Your task to perform on an android device: Show me popular videos on Youtube Image 0: 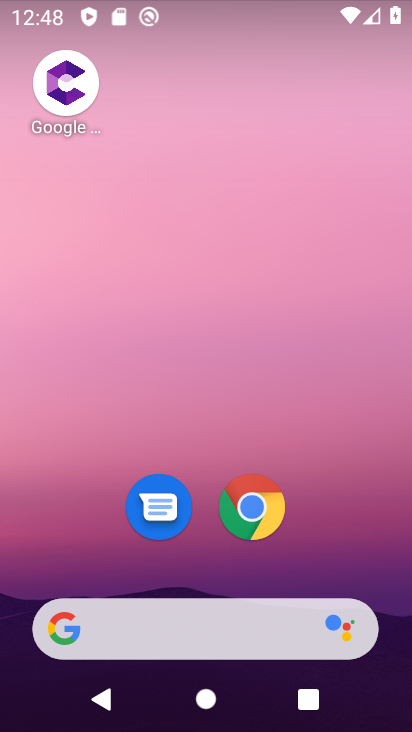
Step 0: drag from (344, 474) to (255, 17)
Your task to perform on an android device: Show me popular videos on Youtube Image 1: 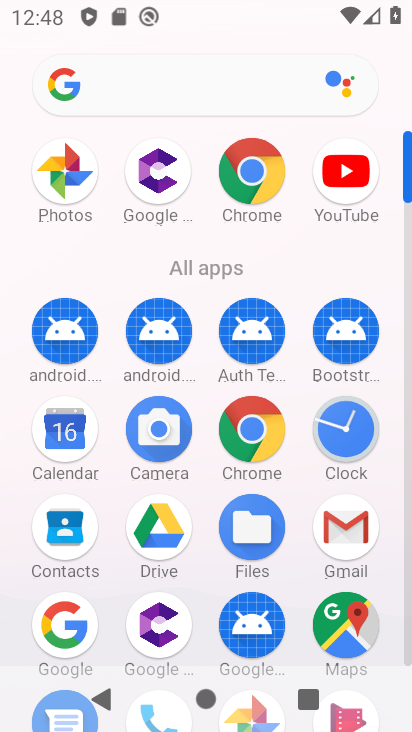
Step 1: click (342, 178)
Your task to perform on an android device: Show me popular videos on Youtube Image 2: 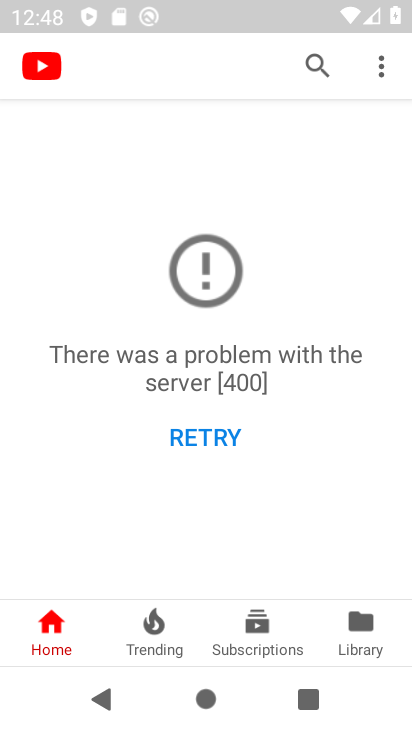
Step 2: click (367, 634)
Your task to perform on an android device: Show me popular videos on Youtube Image 3: 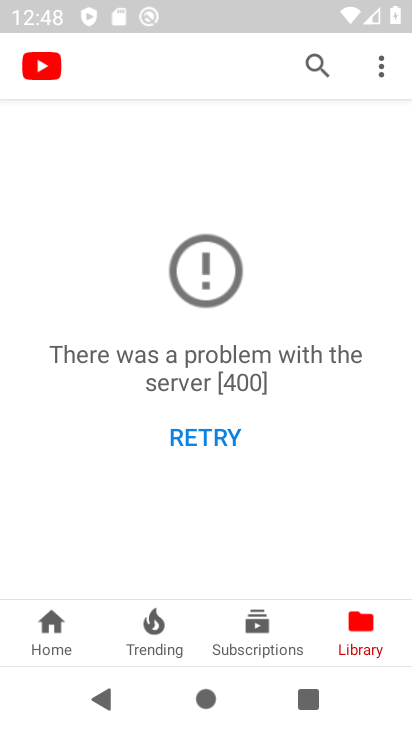
Step 3: task complete